Your task to perform on an android device: Open the web browser Image 0: 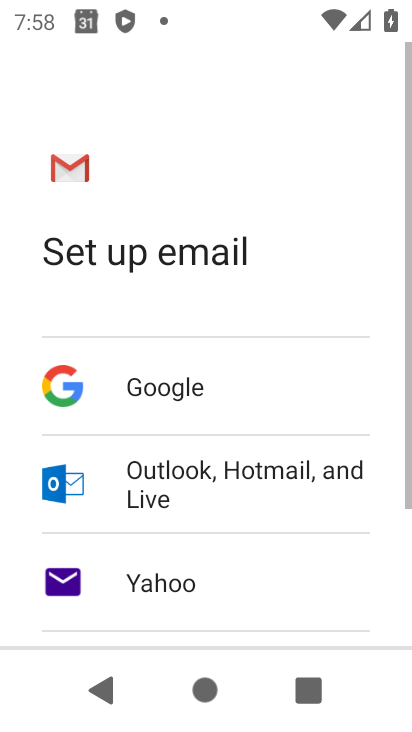
Step 0: press home button
Your task to perform on an android device: Open the web browser Image 1: 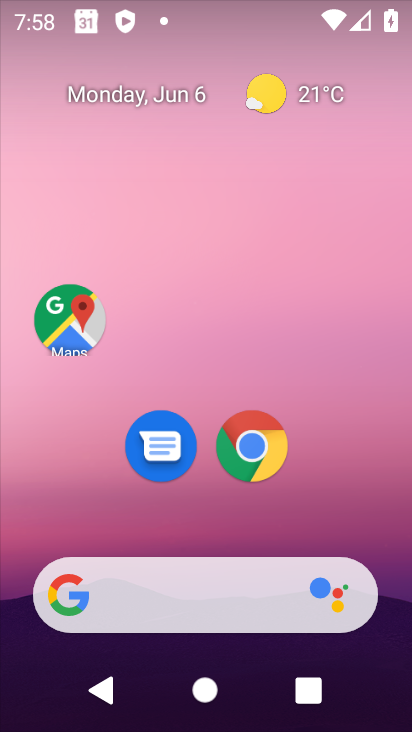
Step 1: click (255, 445)
Your task to perform on an android device: Open the web browser Image 2: 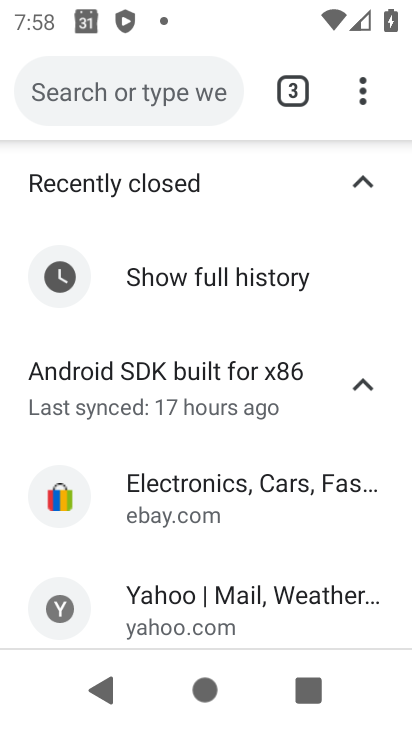
Step 2: task complete